Your task to perform on an android device: change the clock display to digital Image 0: 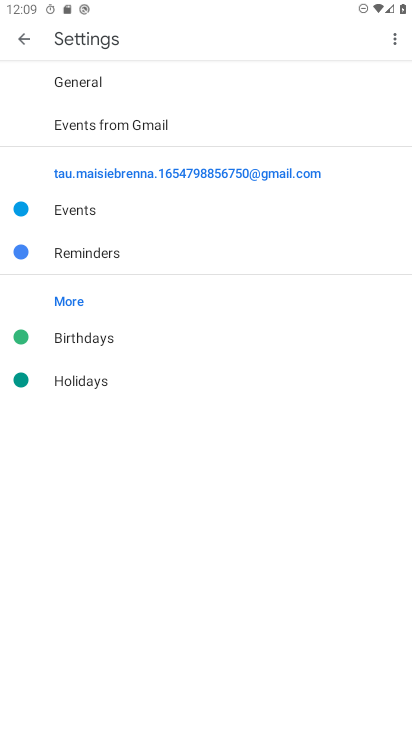
Step 0: press home button
Your task to perform on an android device: change the clock display to digital Image 1: 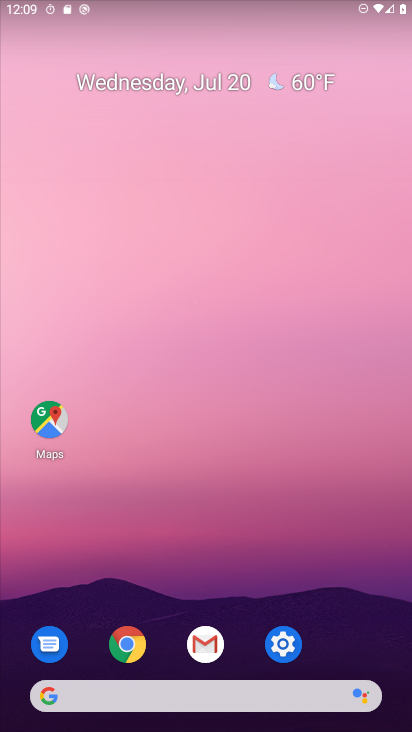
Step 1: drag from (219, 717) to (302, 292)
Your task to perform on an android device: change the clock display to digital Image 2: 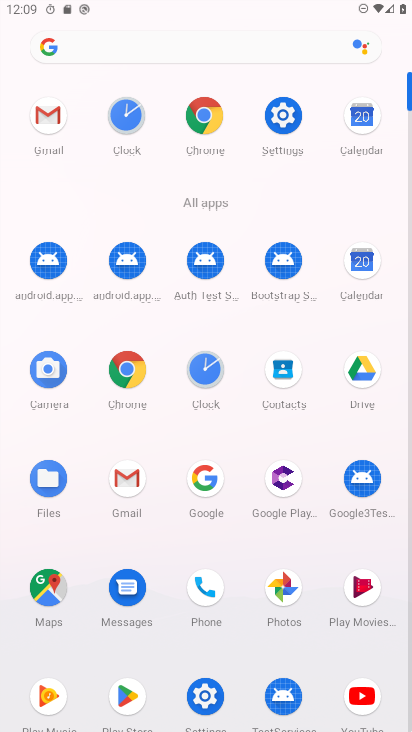
Step 2: click (218, 375)
Your task to perform on an android device: change the clock display to digital Image 3: 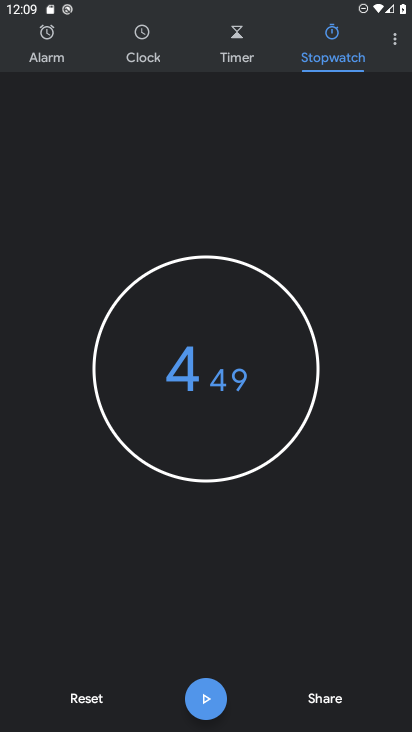
Step 3: click (401, 42)
Your task to perform on an android device: change the clock display to digital Image 4: 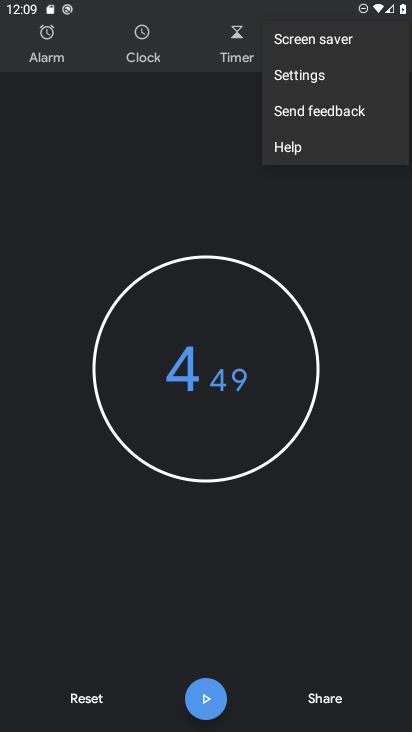
Step 4: click (299, 66)
Your task to perform on an android device: change the clock display to digital Image 5: 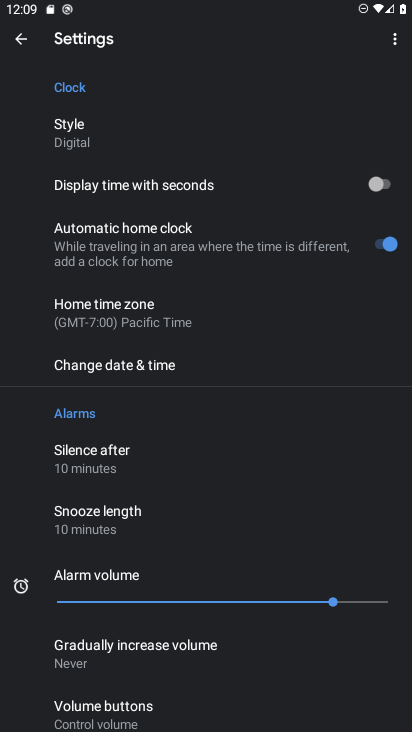
Step 5: click (142, 144)
Your task to perform on an android device: change the clock display to digital Image 6: 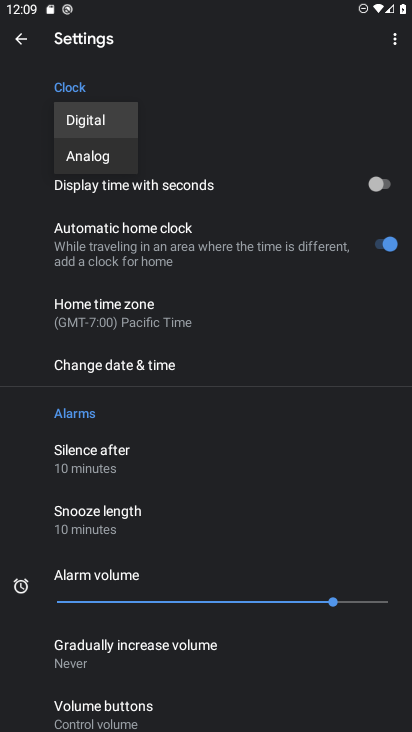
Step 6: click (104, 124)
Your task to perform on an android device: change the clock display to digital Image 7: 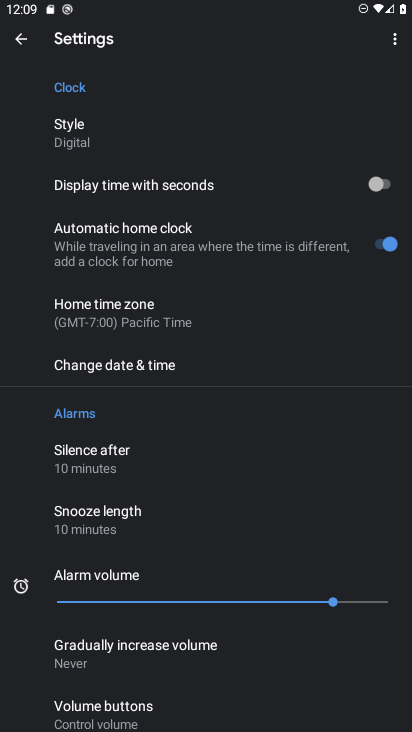
Step 7: task complete